Your task to perform on an android device: Search for Mexican restaurants on Maps Image 0: 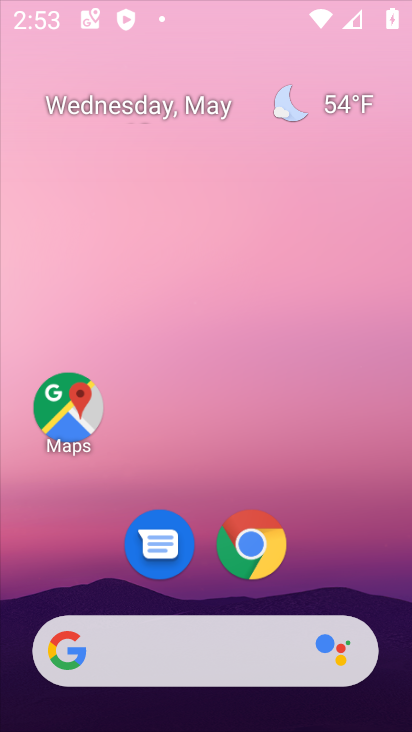
Step 0: click (63, 446)
Your task to perform on an android device: Search for Mexican restaurants on Maps Image 1: 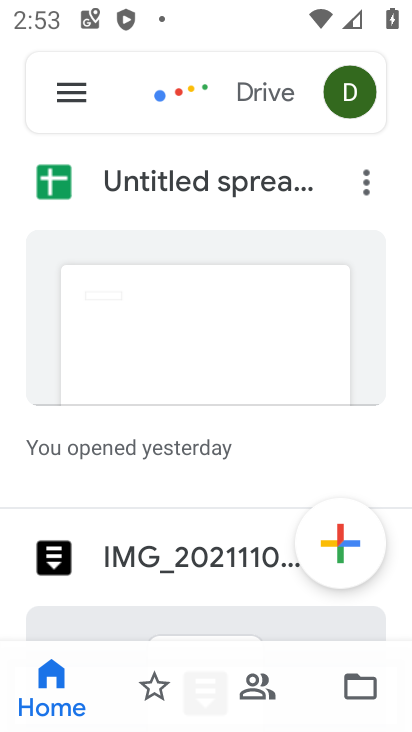
Step 1: task complete